Your task to perform on an android device: make emails show in primary in the gmail app Image 0: 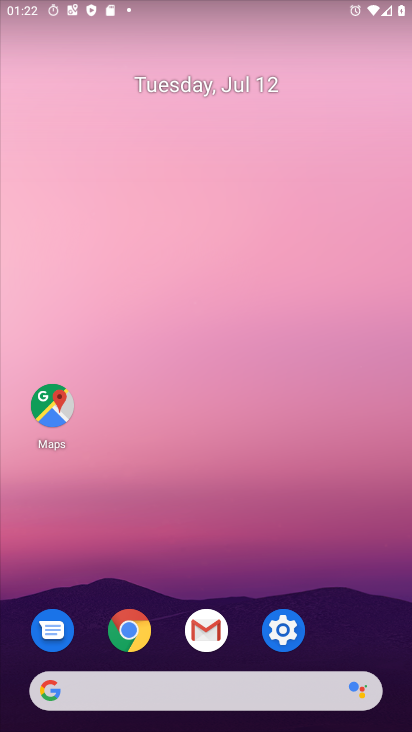
Step 0: click (211, 617)
Your task to perform on an android device: make emails show in primary in the gmail app Image 1: 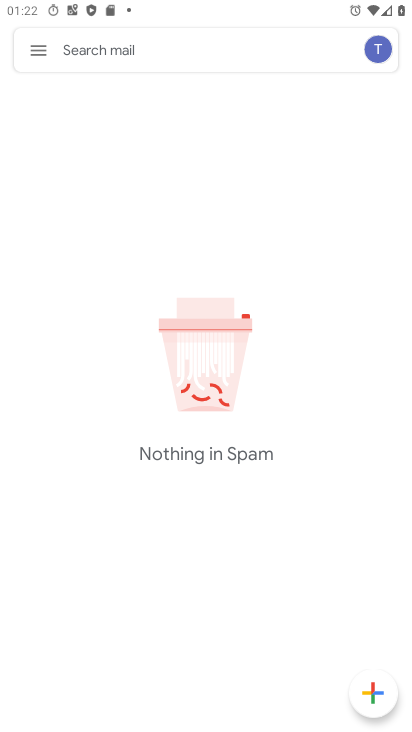
Step 1: click (35, 51)
Your task to perform on an android device: make emails show in primary in the gmail app Image 2: 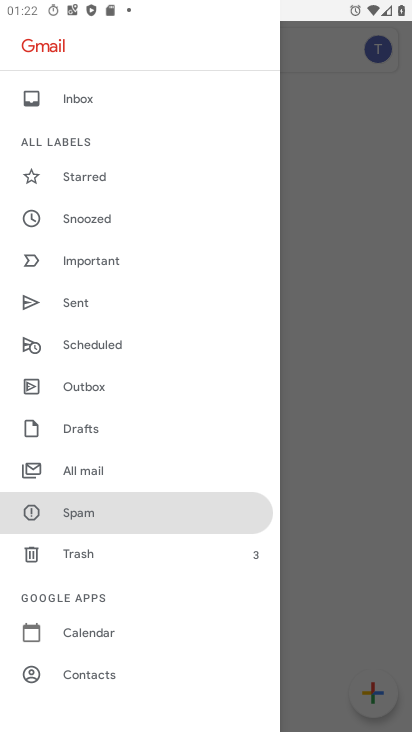
Step 2: drag from (121, 639) to (216, 489)
Your task to perform on an android device: make emails show in primary in the gmail app Image 3: 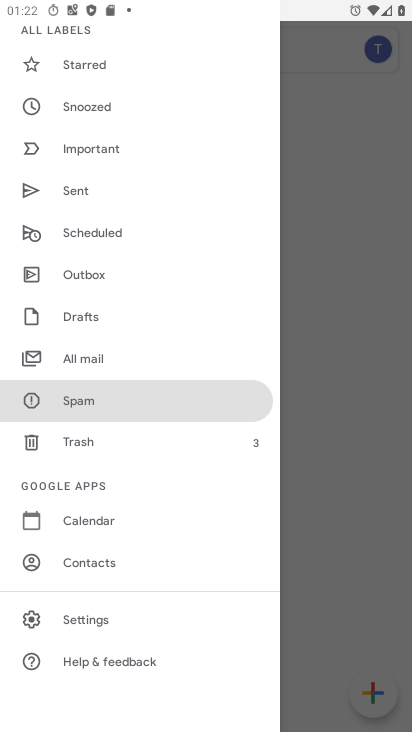
Step 3: click (118, 623)
Your task to perform on an android device: make emails show in primary in the gmail app Image 4: 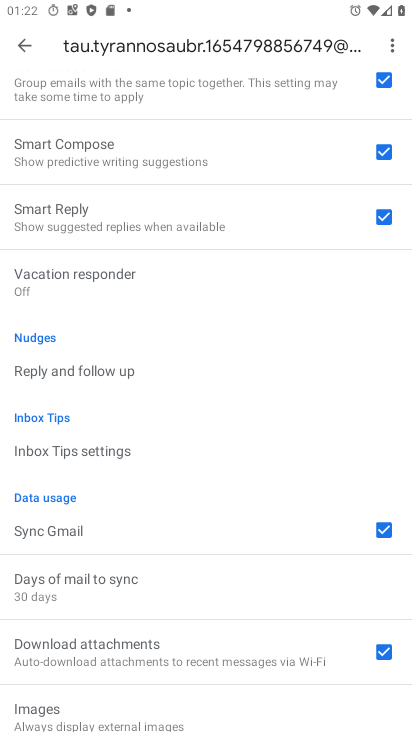
Step 4: drag from (154, 318) to (83, 590)
Your task to perform on an android device: make emails show in primary in the gmail app Image 5: 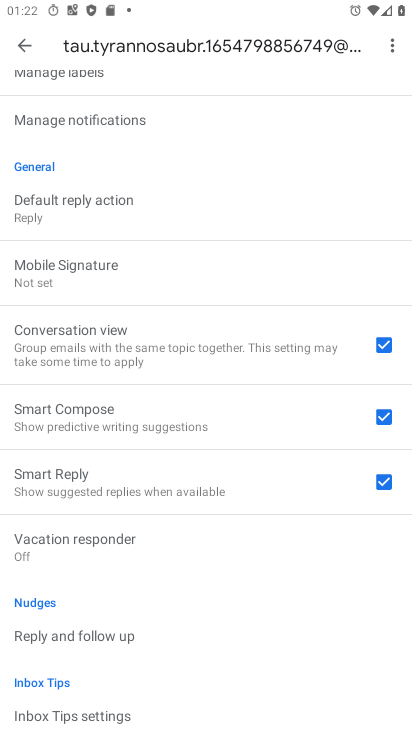
Step 5: drag from (119, 283) to (119, 483)
Your task to perform on an android device: make emails show in primary in the gmail app Image 6: 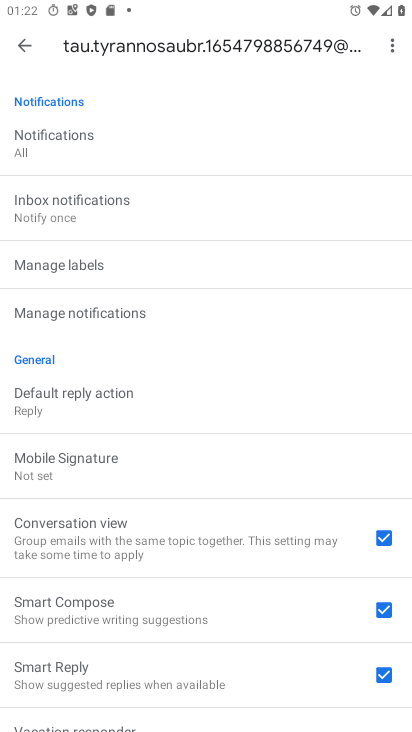
Step 6: drag from (92, 161) to (50, 475)
Your task to perform on an android device: make emails show in primary in the gmail app Image 7: 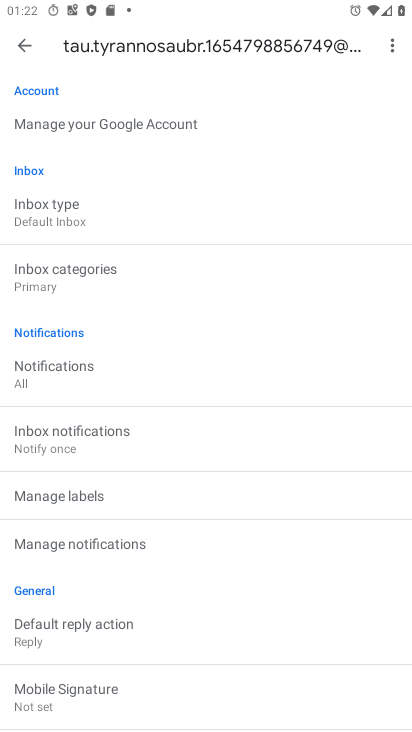
Step 7: click (91, 271)
Your task to perform on an android device: make emails show in primary in the gmail app Image 8: 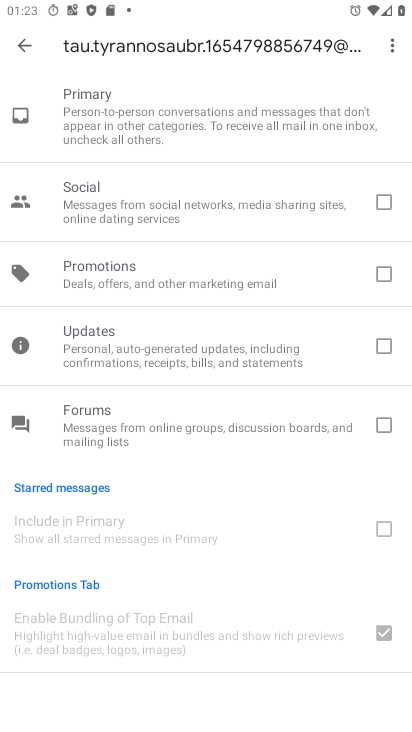
Step 8: click (186, 119)
Your task to perform on an android device: make emails show in primary in the gmail app Image 9: 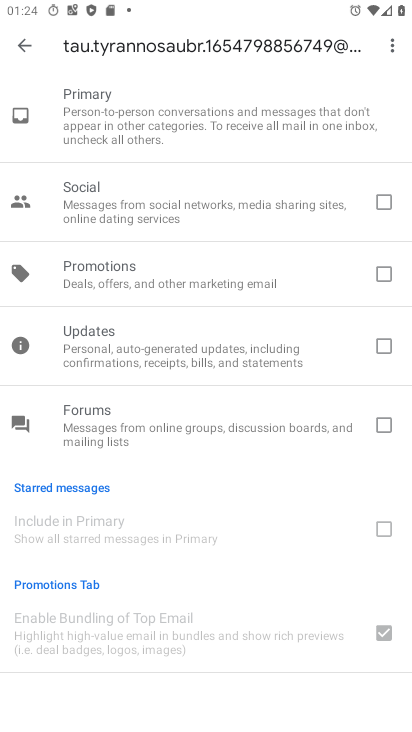
Step 9: task complete